Your task to perform on an android device: change notification settings in the gmail app Image 0: 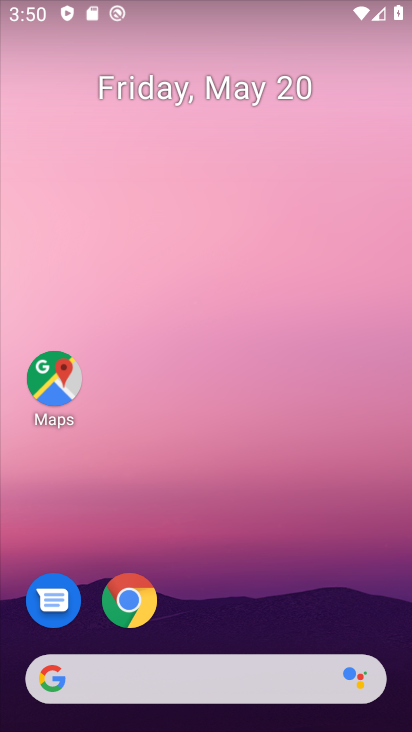
Step 0: drag from (263, 564) to (191, 8)
Your task to perform on an android device: change notification settings in the gmail app Image 1: 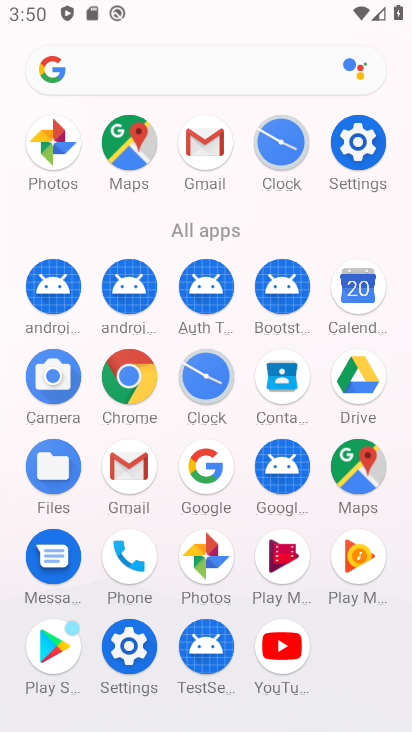
Step 1: drag from (14, 540) to (5, 275)
Your task to perform on an android device: change notification settings in the gmail app Image 2: 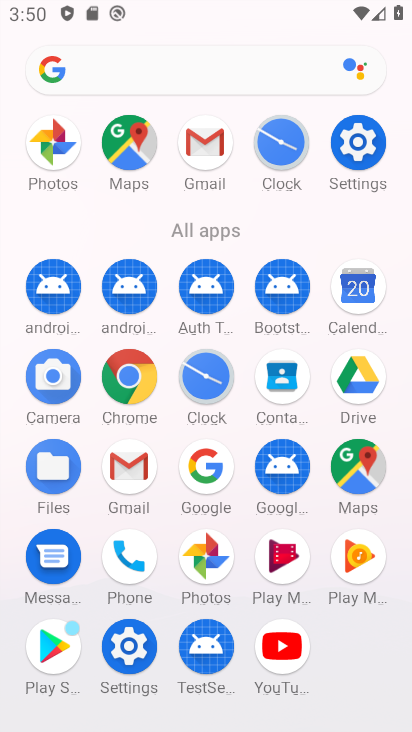
Step 2: click (126, 644)
Your task to perform on an android device: change notification settings in the gmail app Image 3: 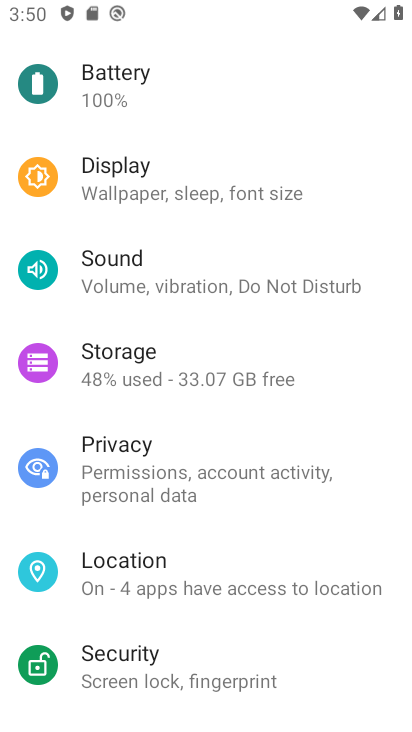
Step 3: drag from (309, 166) to (294, 537)
Your task to perform on an android device: change notification settings in the gmail app Image 4: 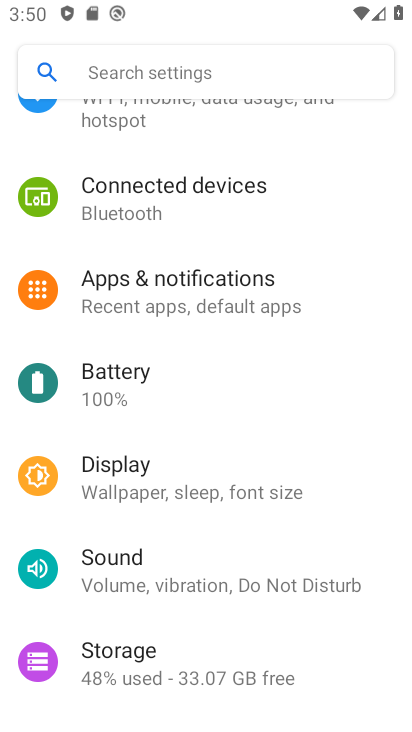
Step 4: drag from (239, 212) to (220, 656)
Your task to perform on an android device: change notification settings in the gmail app Image 5: 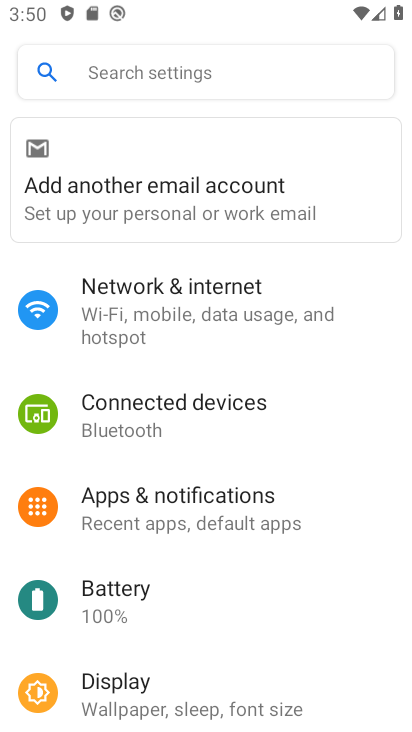
Step 5: click (234, 502)
Your task to perform on an android device: change notification settings in the gmail app Image 6: 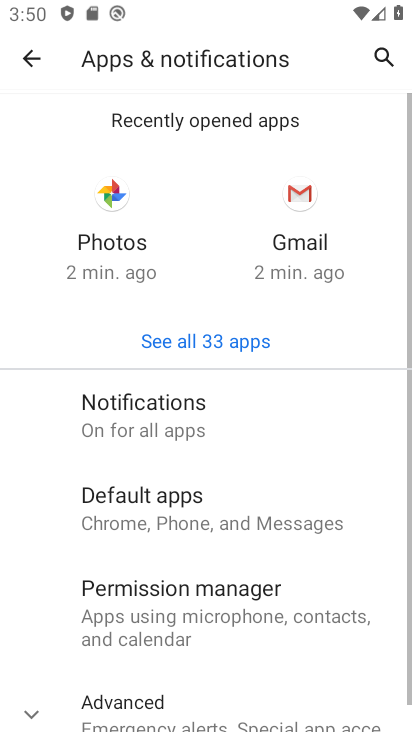
Step 6: click (26, 712)
Your task to perform on an android device: change notification settings in the gmail app Image 7: 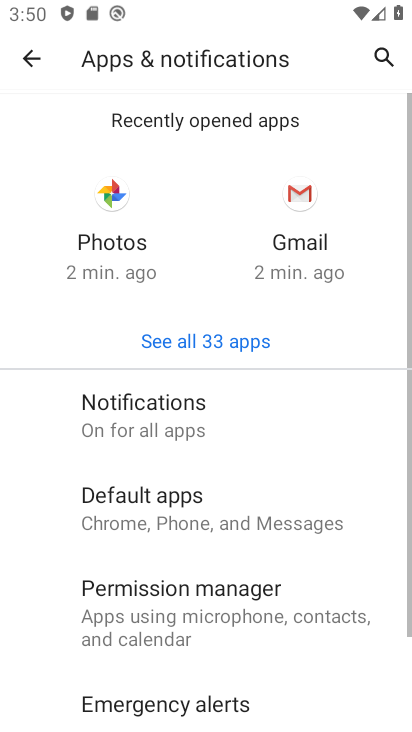
Step 7: drag from (282, 611) to (274, 215)
Your task to perform on an android device: change notification settings in the gmail app Image 8: 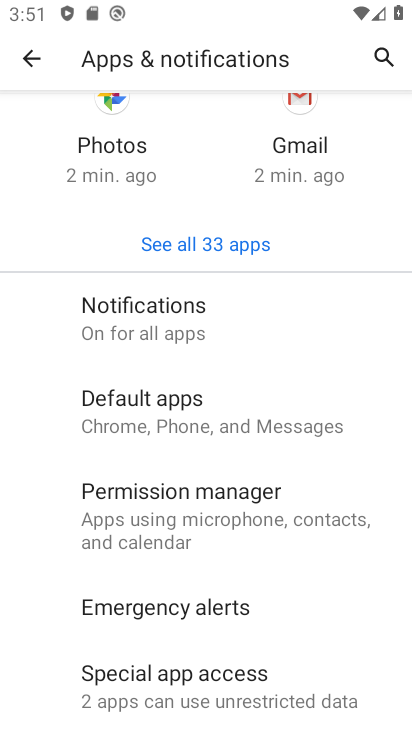
Step 8: click (167, 313)
Your task to perform on an android device: change notification settings in the gmail app Image 9: 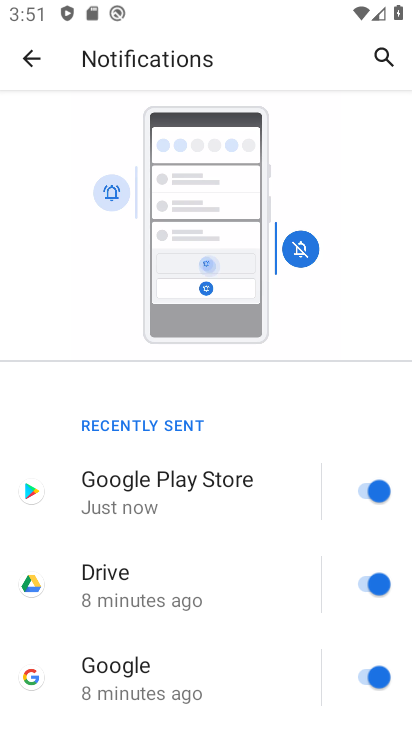
Step 9: drag from (208, 536) to (258, 162)
Your task to perform on an android device: change notification settings in the gmail app Image 10: 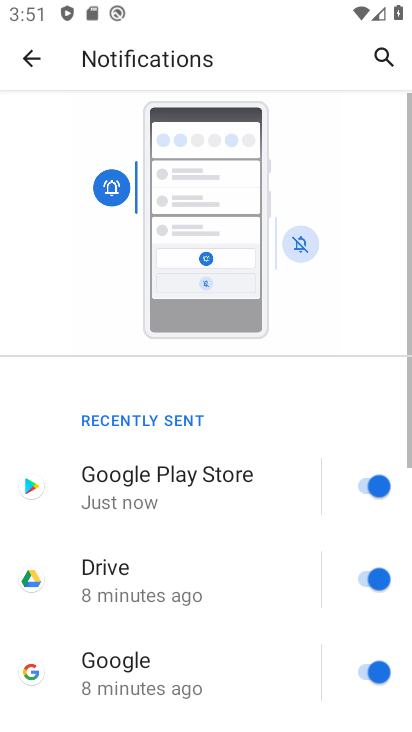
Step 10: drag from (223, 579) to (245, 144)
Your task to perform on an android device: change notification settings in the gmail app Image 11: 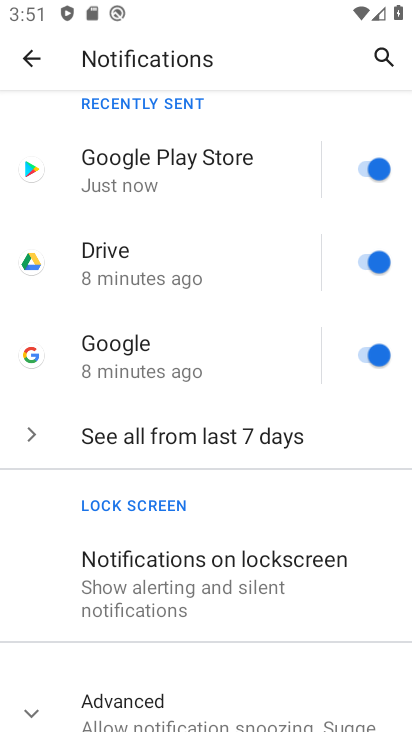
Step 11: drag from (227, 558) to (232, 180)
Your task to perform on an android device: change notification settings in the gmail app Image 12: 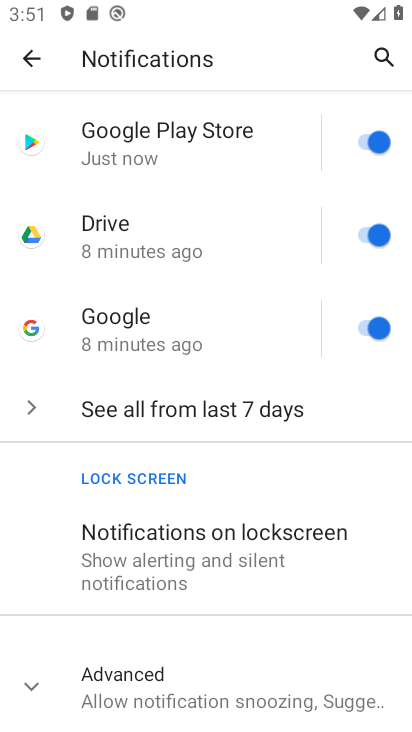
Step 12: click (31, 670)
Your task to perform on an android device: change notification settings in the gmail app Image 13: 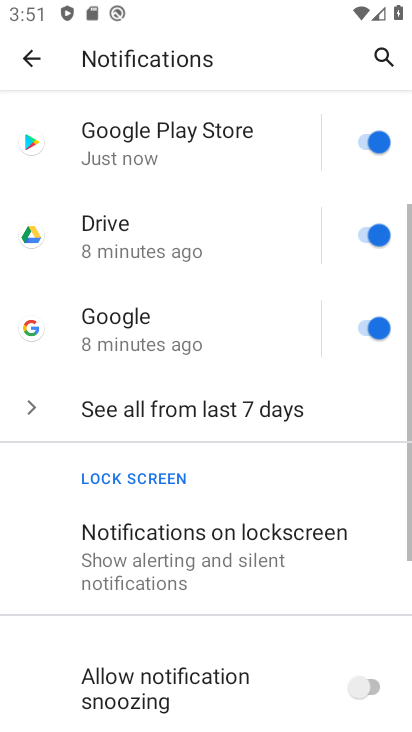
Step 13: task complete